Your task to perform on an android device: move an email to a new category in the gmail app Image 0: 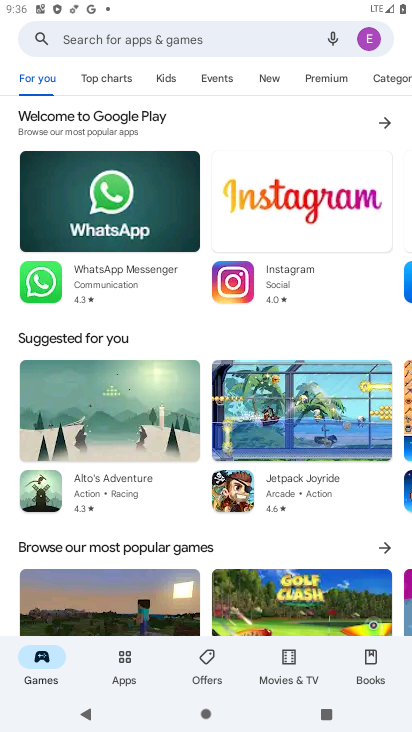
Step 0: press home button
Your task to perform on an android device: move an email to a new category in the gmail app Image 1: 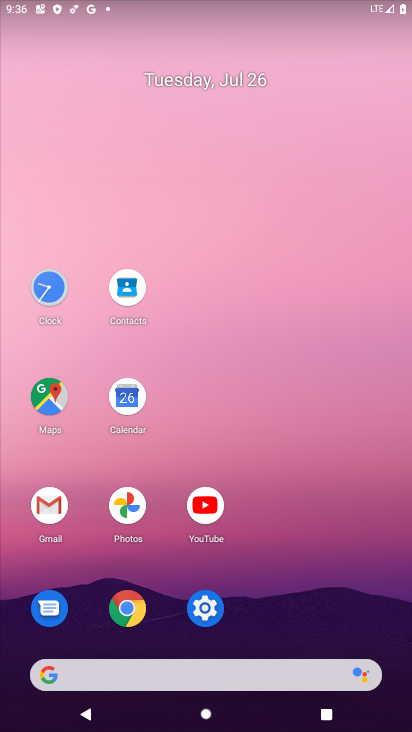
Step 1: click (43, 504)
Your task to perform on an android device: move an email to a new category in the gmail app Image 2: 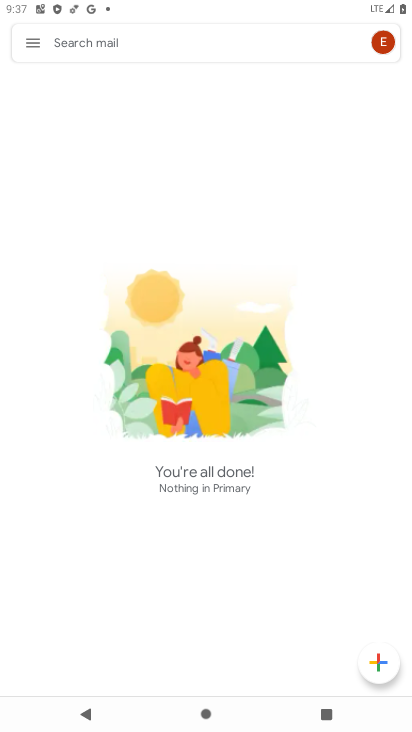
Step 2: click (28, 43)
Your task to perform on an android device: move an email to a new category in the gmail app Image 3: 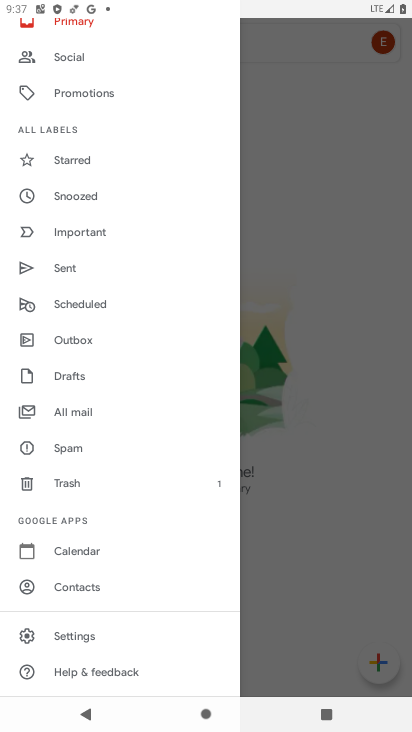
Step 3: click (80, 411)
Your task to perform on an android device: move an email to a new category in the gmail app Image 4: 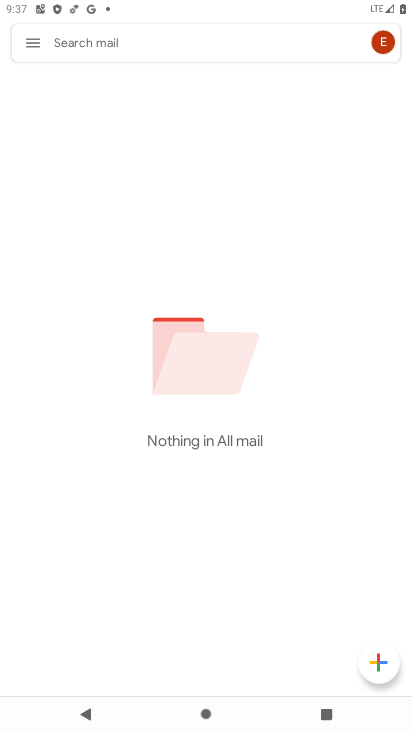
Step 4: task complete